Your task to perform on an android device: turn off priority inbox in the gmail app Image 0: 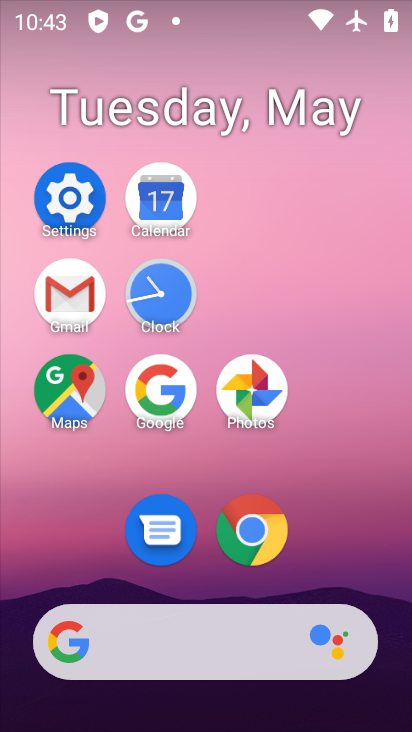
Step 0: click (69, 287)
Your task to perform on an android device: turn off priority inbox in the gmail app Image 1: 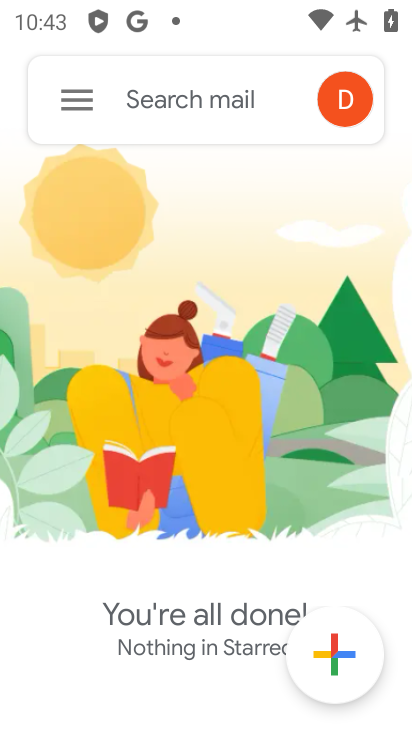
Step 1: click (76, 95)
Your task to perform on an android device: turn off priority inbox in the gmail app Image 2: 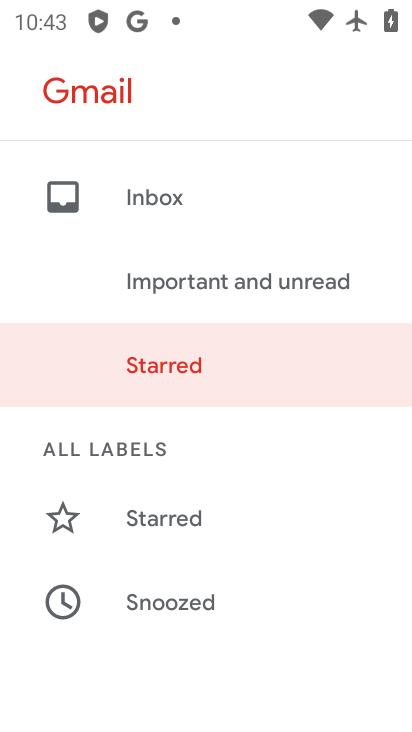
Step 2: drag from (229, 578) to (237, 207)
Your task to perform on an android device: turn off priority inbox in the gmail app Image 3: 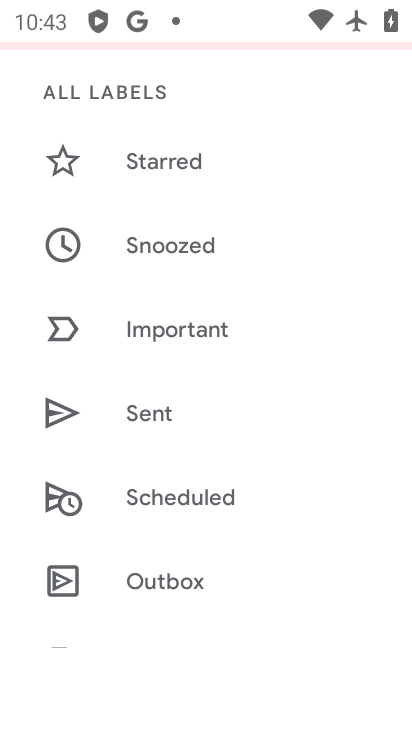
Step 3: drag from (209, 519) to (218, 205)
Your task to perform on an android device: turn off priority inbox in the gmail app Image 4: 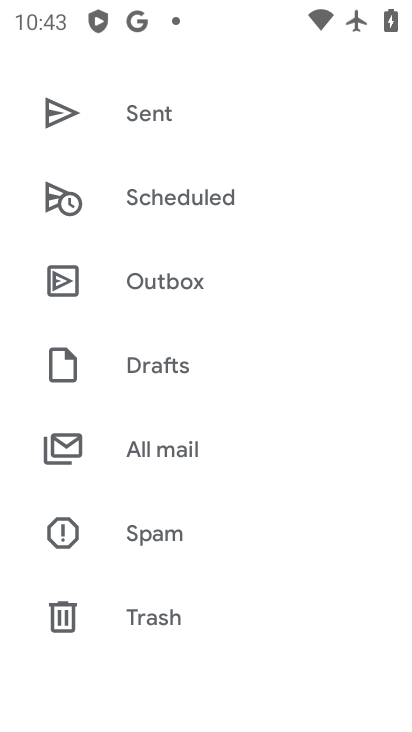
Step 4: drag from (187, 475) to (174, 174)
Your task to perform on an android device: turn off priority inbox in the gmail app Image 5: 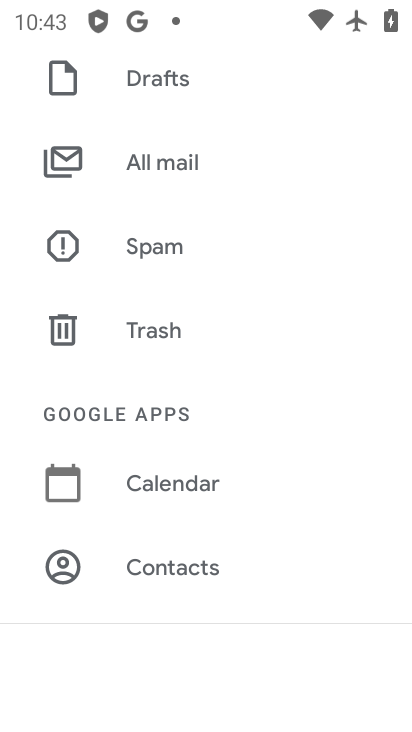
Step 5: drag from (196, 569) to (247, 247)
Your task to perform on an android device: turn off priority inbox in the gmail app Image 6: 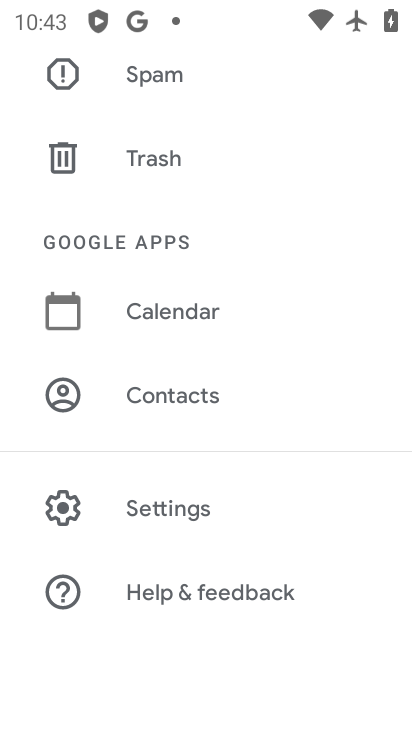
Step 6: click (188, 512)
Your task to perform on an android device: turn off priority inbox in the gmail app Image 7: 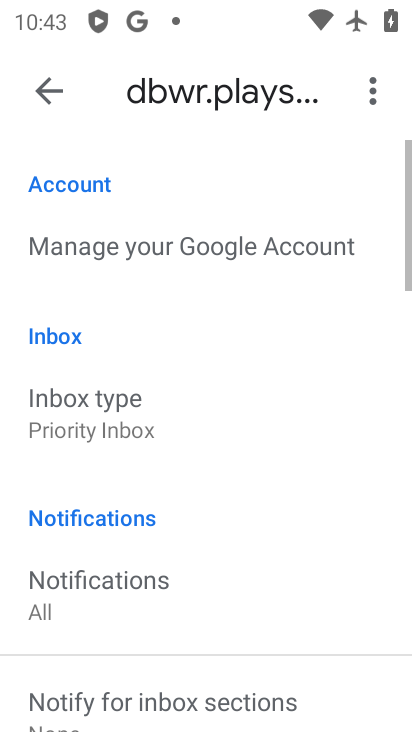
Step 7: click (179, 411)
Your task to perform on an android device: turn off priority inbox in the gmail app Image 8: 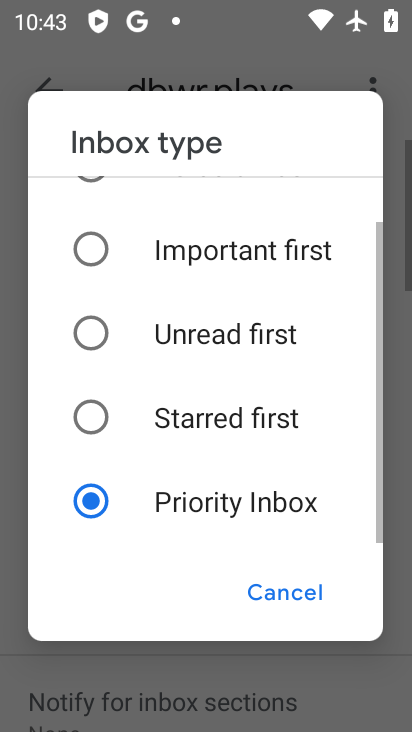
Step 8: drag from (171, 256) to (169, 543)
Your task to perform on an android device: turn off priority inbox in the gmail app Image 9: 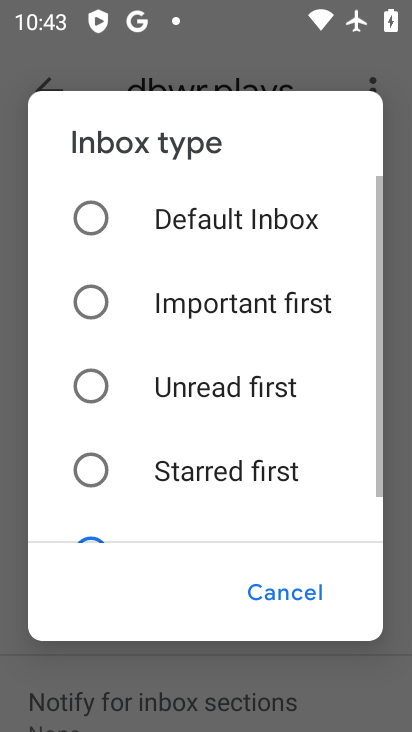
Step 9: click (170, 238)
Your task to perform on an android device: turn off priority inbox in the gmail app Image 10: 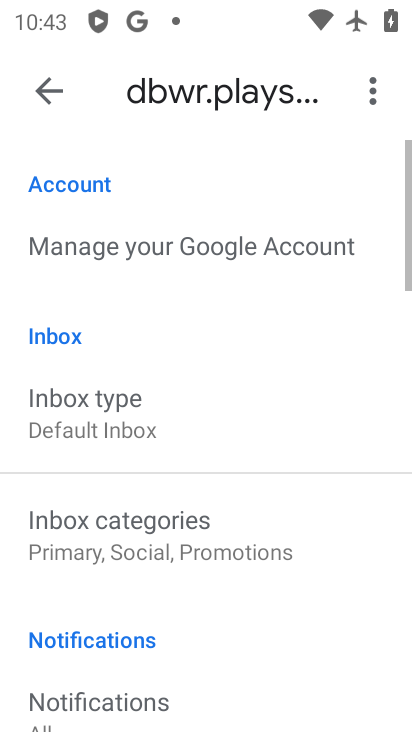
Step 10: task complete